Your task to perform on an android device: Open internet settings Image 0: 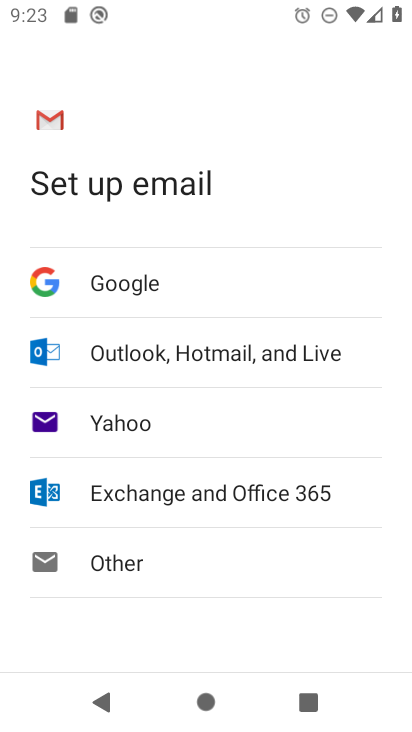
Step 0: press home button
Your task to perform on an android device: Open internet settings Image 1: 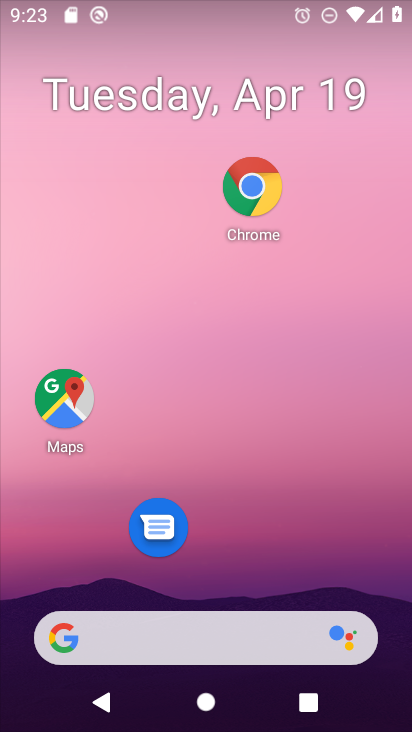
Step 1: drag from (306, 545) to (330, 155)
Your task to perform on an android device: Open internet settings Image 2: 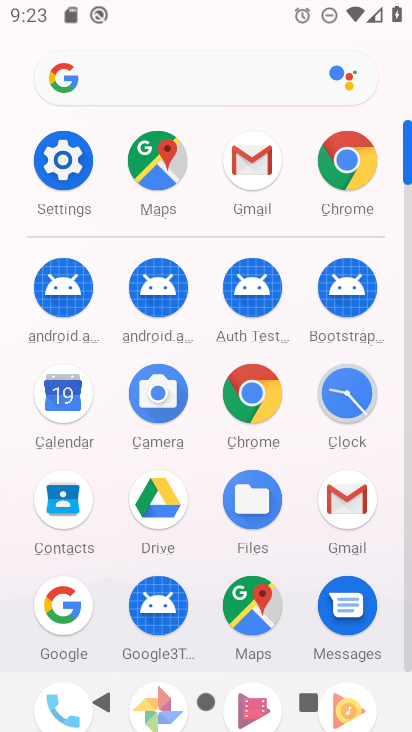
Step 2: drag from (198, 601) to (220, 351)
Your task to perform on an android device: Open internet settings Image 3: 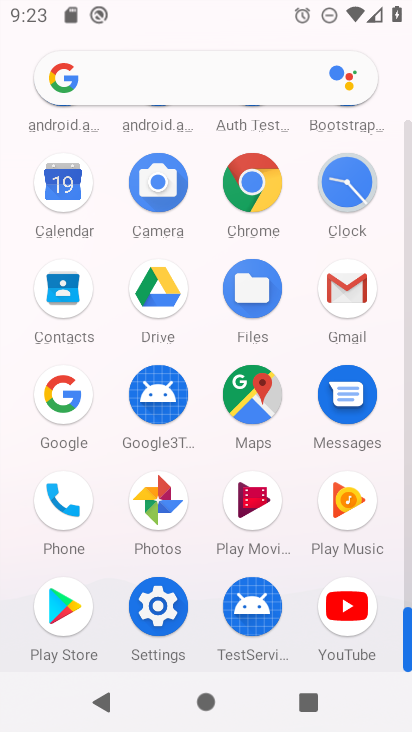
Step 3: click (160, 596)
Your task to perform on an android device: Open internet settings Image 4: 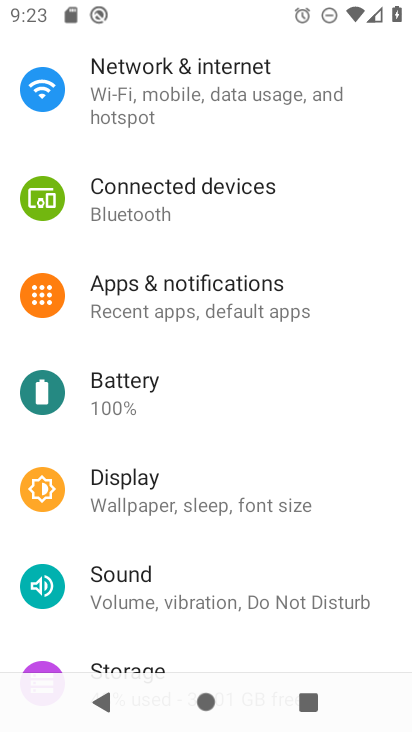
Step 4: drag from (225, 594) to (252, 550)
Your task to perform on an android device: Open internet settings Image 5: 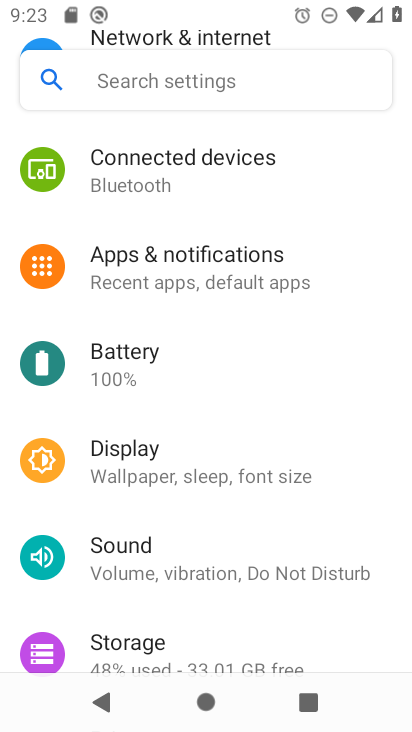
Step 5: drag from (255, 185) to (236, 592)
Your task to perform on an android device: Open internet settings Image 6: 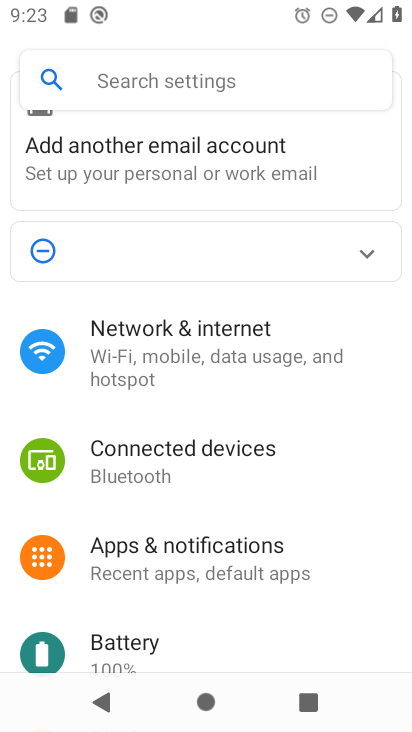
Step 6: click (233, 339)
Your task to perform on an android device: Open internet settings Image 7: 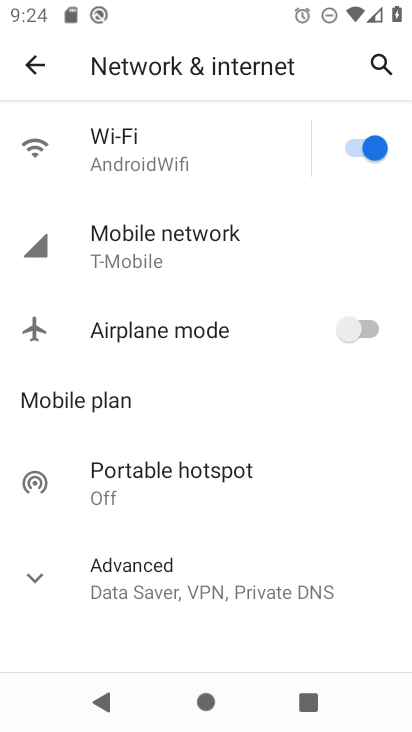
Step 7: task complete